Your task to perform on an android device: Open Chrome and go to settings Image 0: 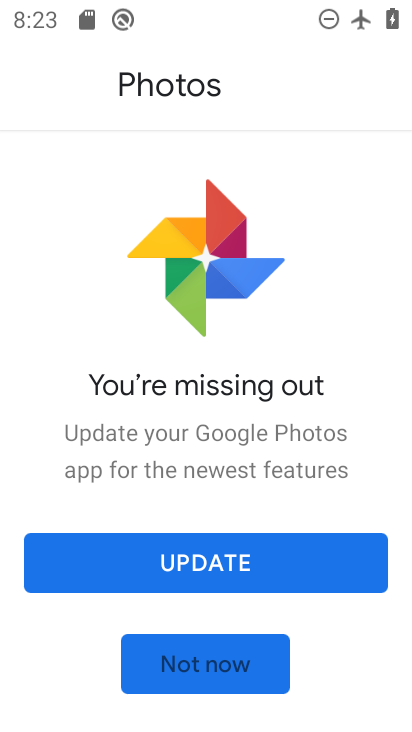
Step 0: press back button
Your task to perform on an android device: Open Chrome and go to settings Image 1: 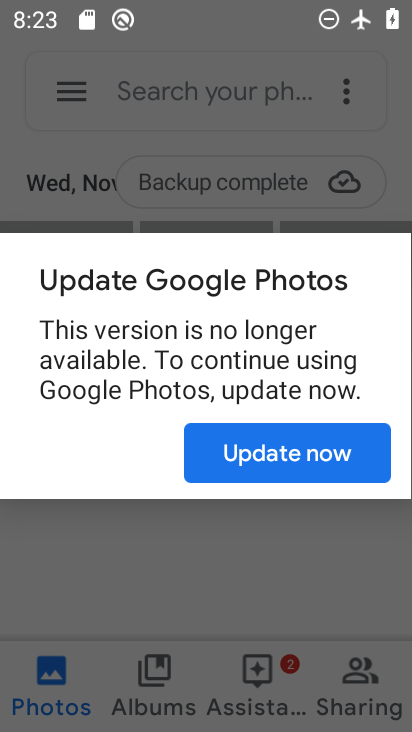
Step 1: press back button
Your task to perform on an android device: Open Chrome and go to settings Image 2: 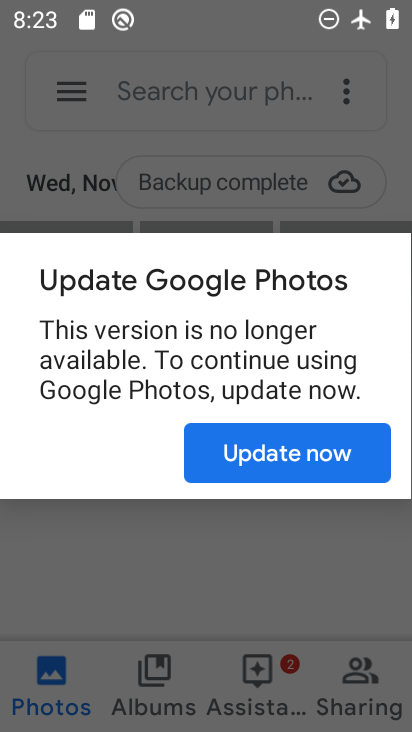
Step 2: press home button
Your task to perform on an android device: Open Chrome and go to settings Image 3: 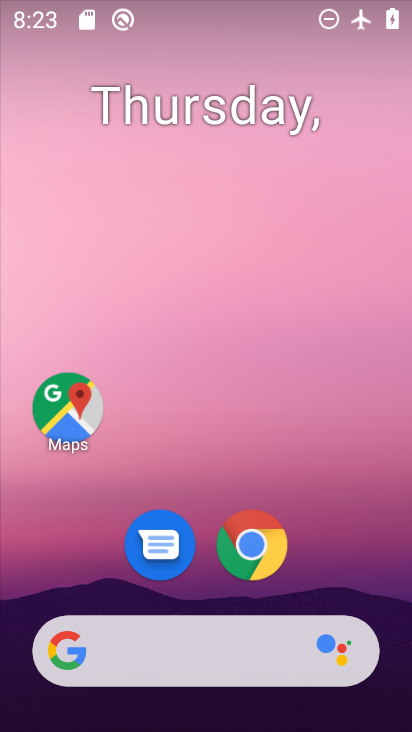
Step 3: click (254, 547)
Your task to perform on an android device: Open Chrome and go to settings Image 4: 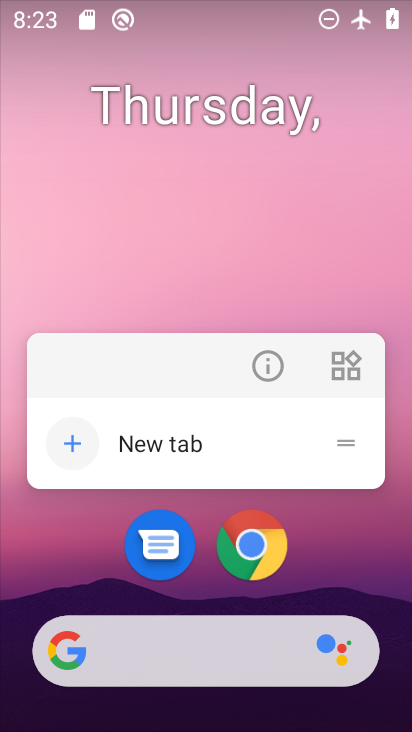
Step 4: click (254, 547)
Your task to perform on an android device: Open Chrome and go to settings Image 5: 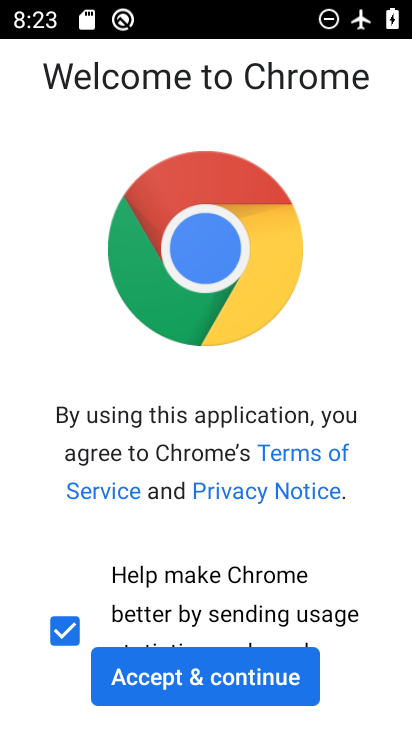
Step 5: click (190, 677)
Your task to perform on an android device: Open Chrome and go to settings Image 6: 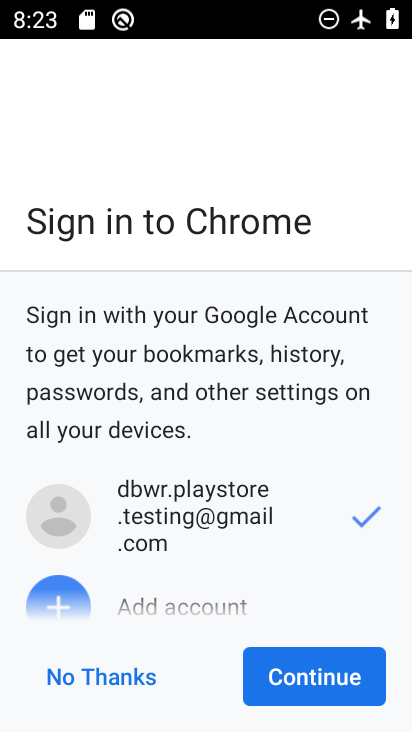
Step 6: click (291, 674)
Your task to perform on an android device: Open Chrome and go to settings Image 7: 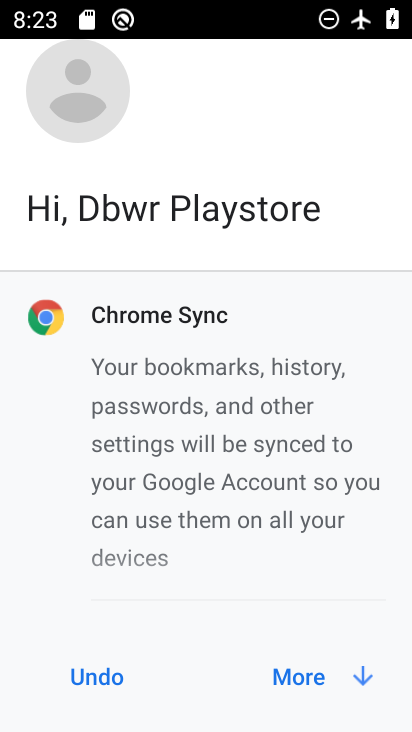
Step 7: click (291, 674)
Your task to perform on an android device: Open Chrome and go to settings Image 8: 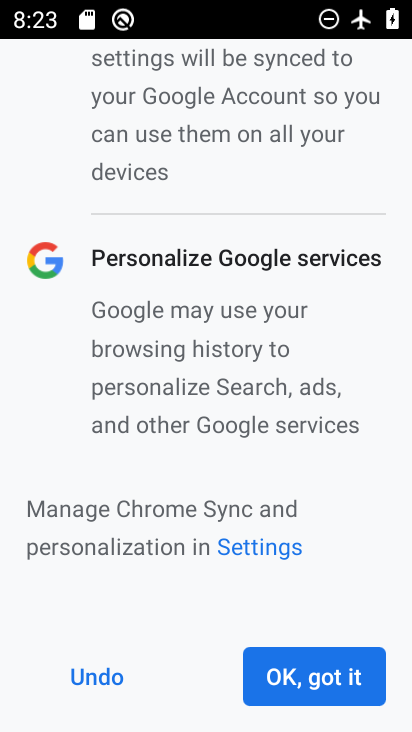
Step 8: click (291, 674)
Your task to perform on an android device: Open Chrome and go to settings Image 9: 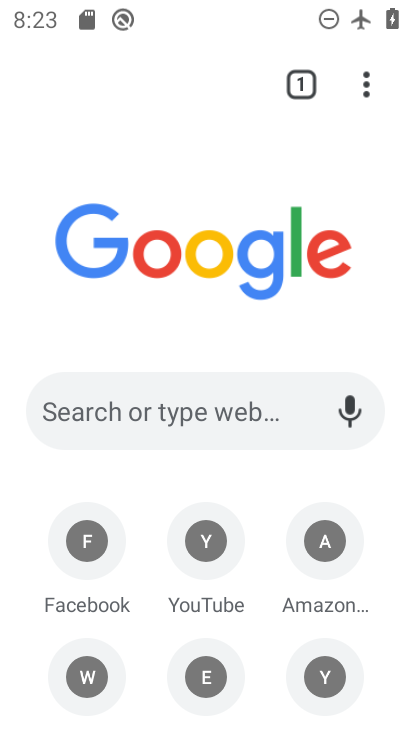
Step 9: click (368, 85)
Your task to perform on an android device: Open Chrome and go to settings Image 10: 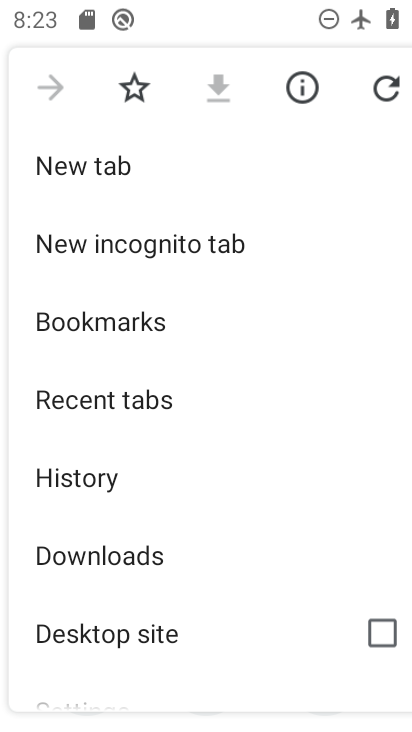
Step 10: drag from (187, 477) to (238, 374)
Your task to perform on an android device: Open Chrome and go to settings Image 11: 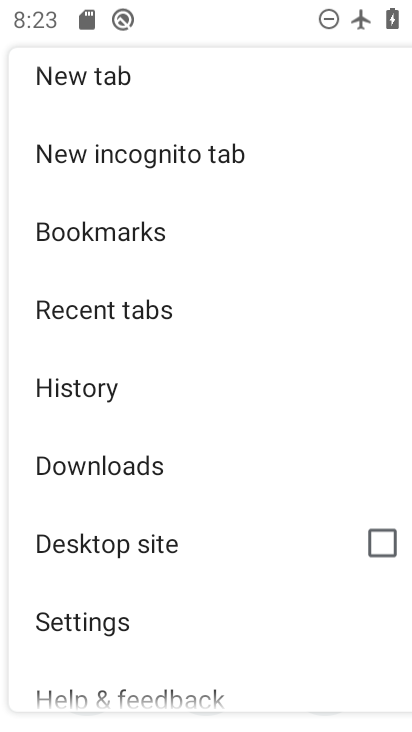
Step 11: drag from (183, 516) to (245, 402)
Your task to perform on an android device: Open Chrome and go to settings Image 12: 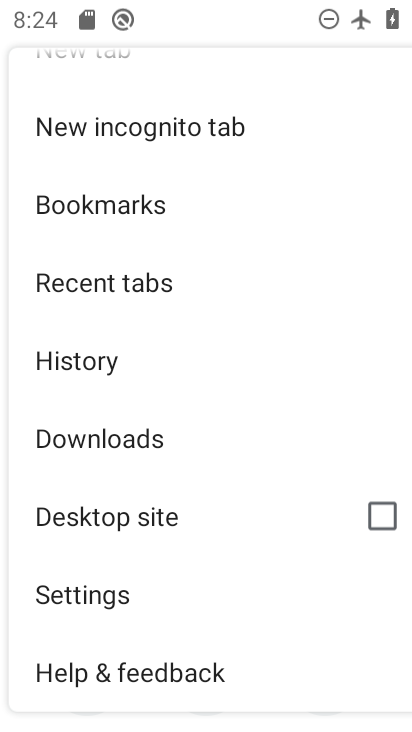
Step 12: click (89, 595)
Your task to perform on an android device: Open Chrome and go to settings Image 13: 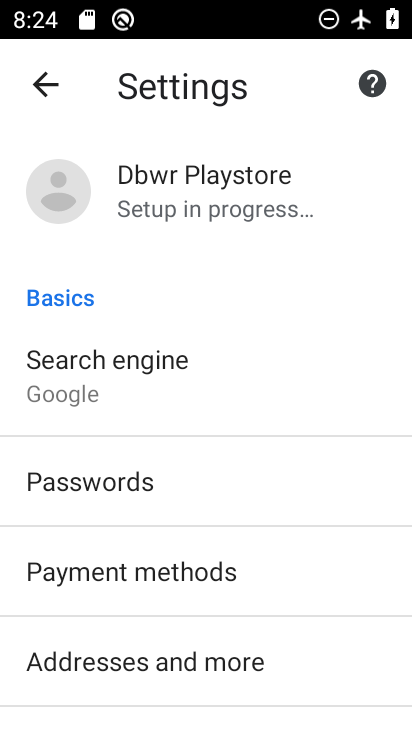
Step 13: task complete